Your task to perform on an android device: change notification settings in the gmail app Image 0: 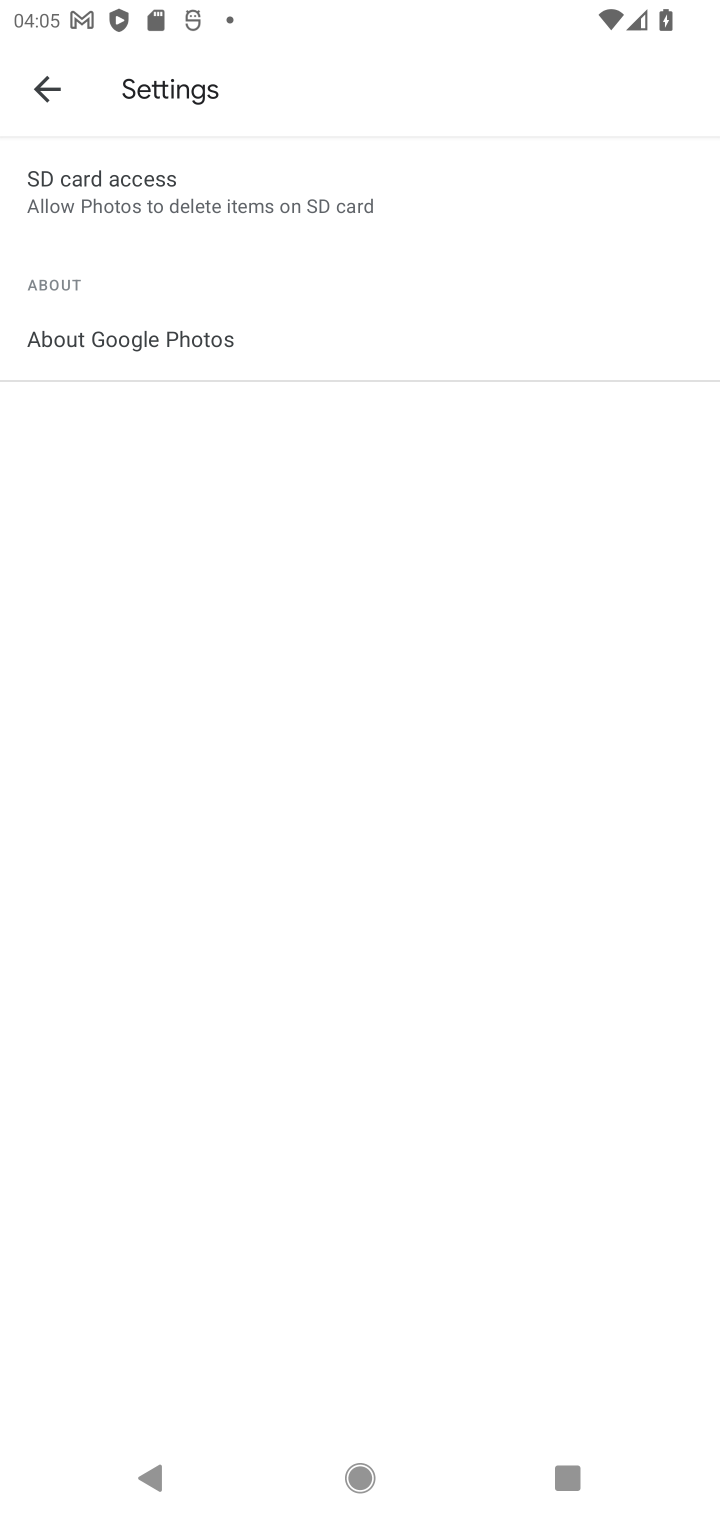
Step 0: press home button
Your task to perform on an android device: change notification settings in the gmail app Image 1: 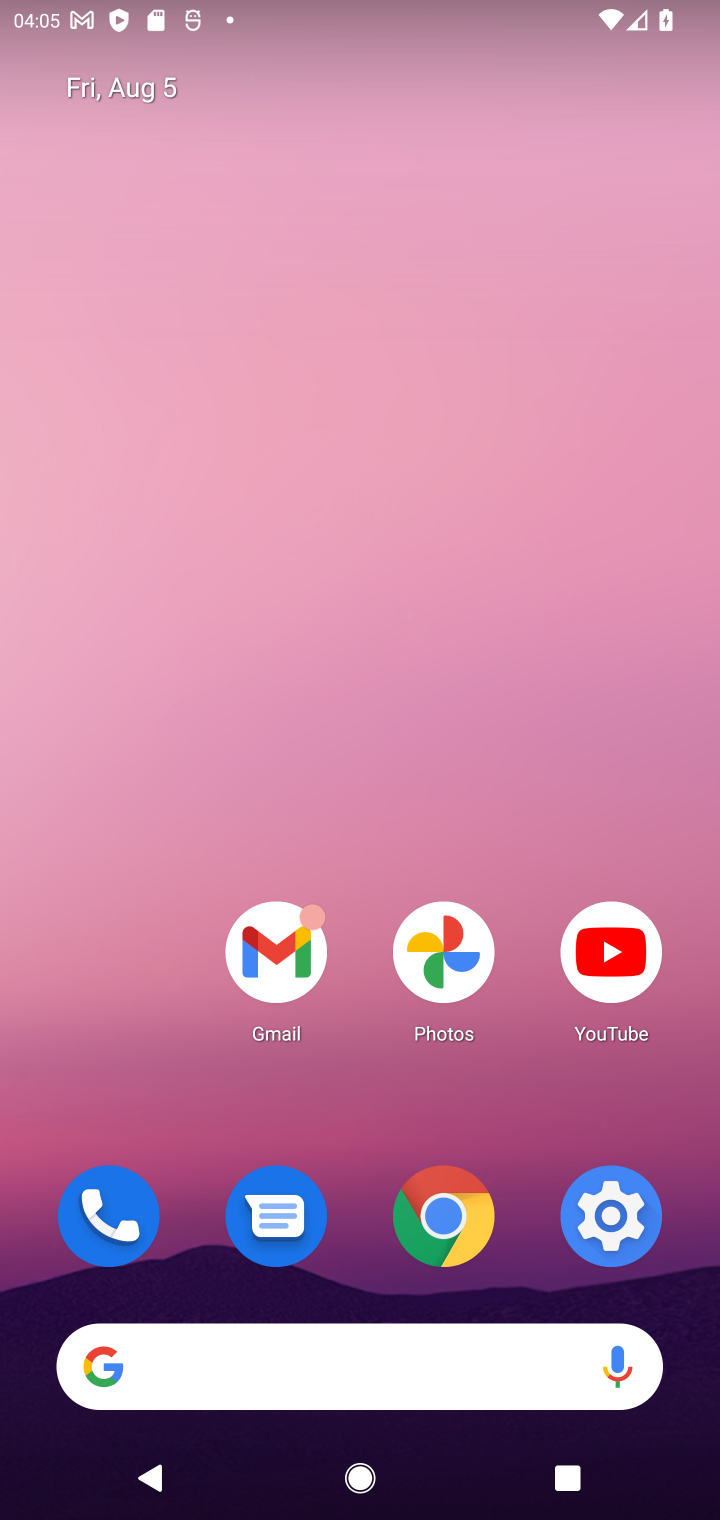
Step 1: click (302, 946)
Your task to perform on an android device: change notification settings in the gmail app Image 2: 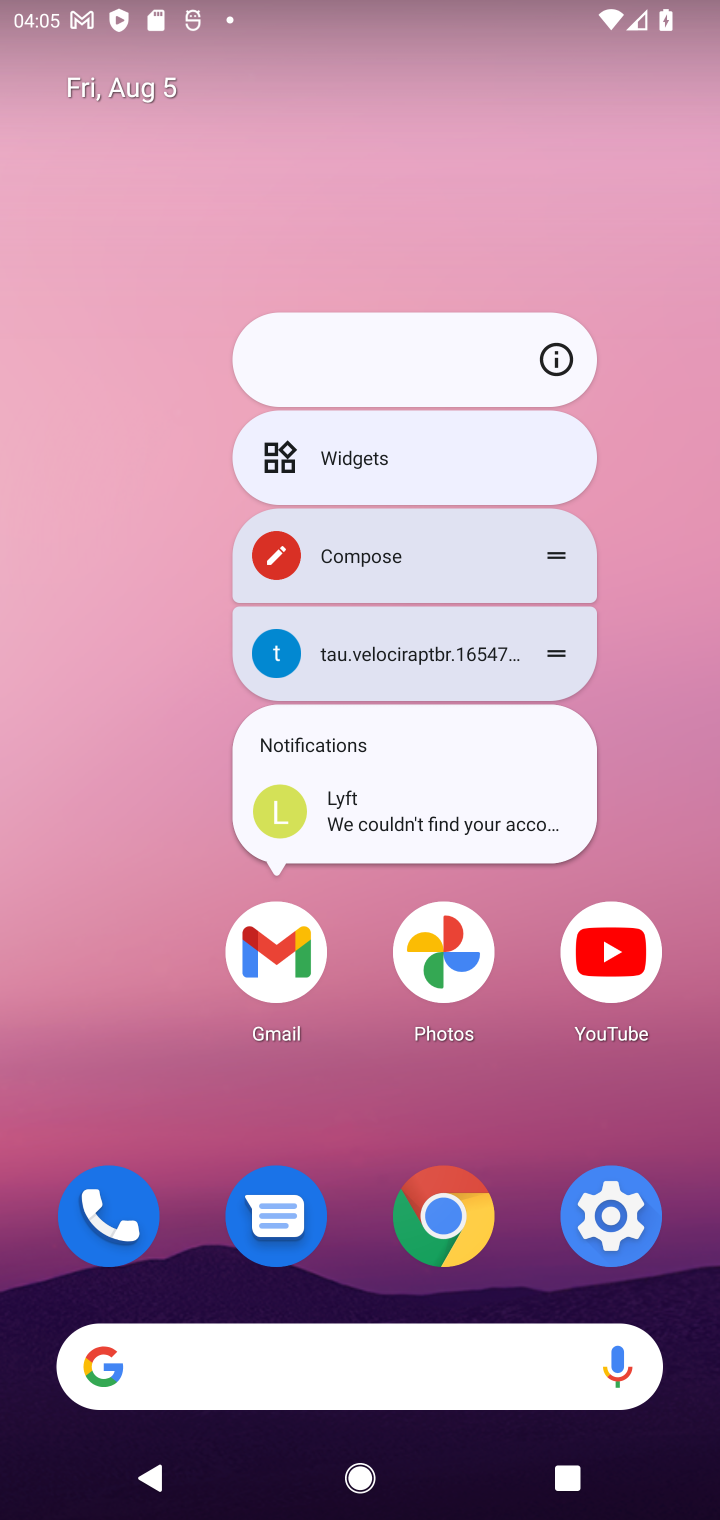
Step 2: click (302, 946)
Your task to perform on an android device: change notification settings in the gmail app Image 3: 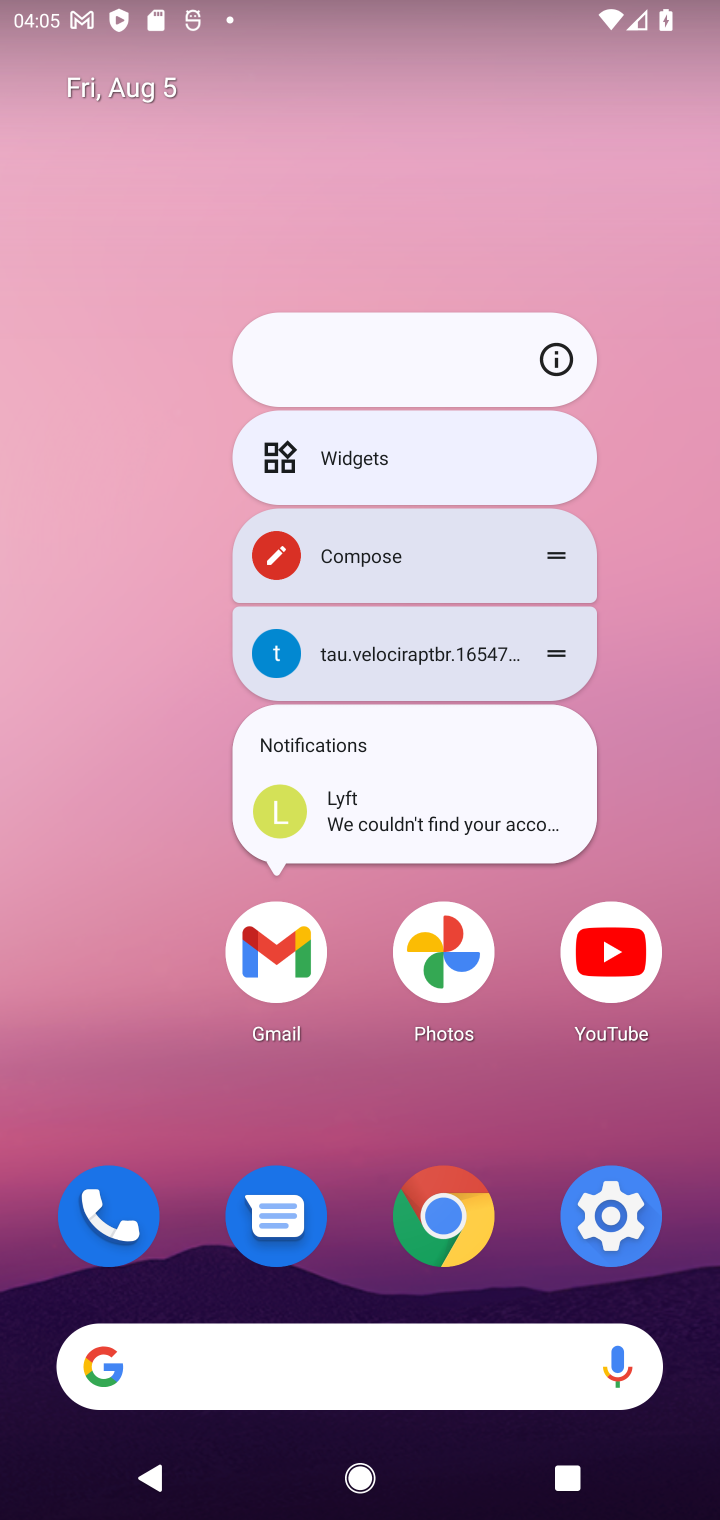
Step 3: click (287, 960)
Your task to perform on an android device: change notification settings in the gmail app Image 4: 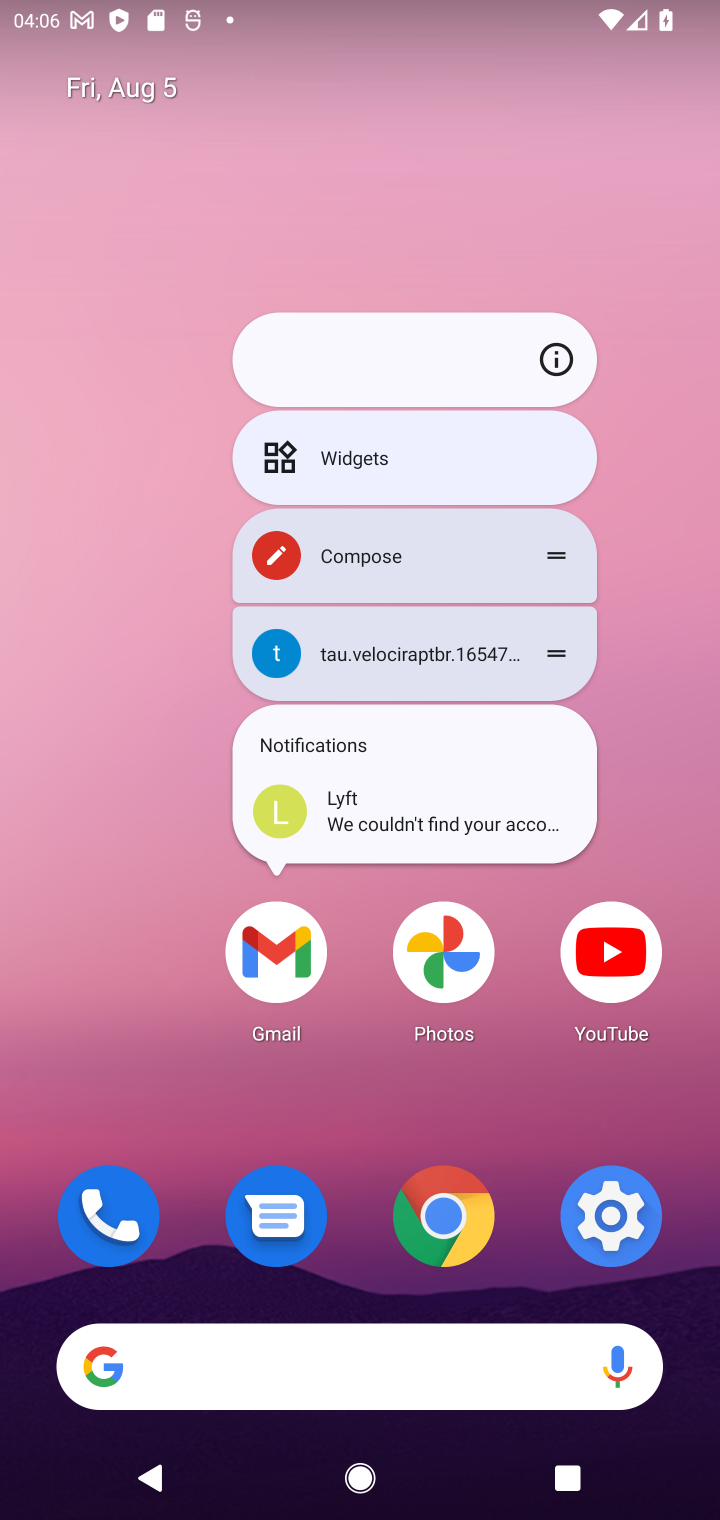
Step 4: click (549, 339)
Your task to perform on an android device: change notification settings in the gmail app Image 5: 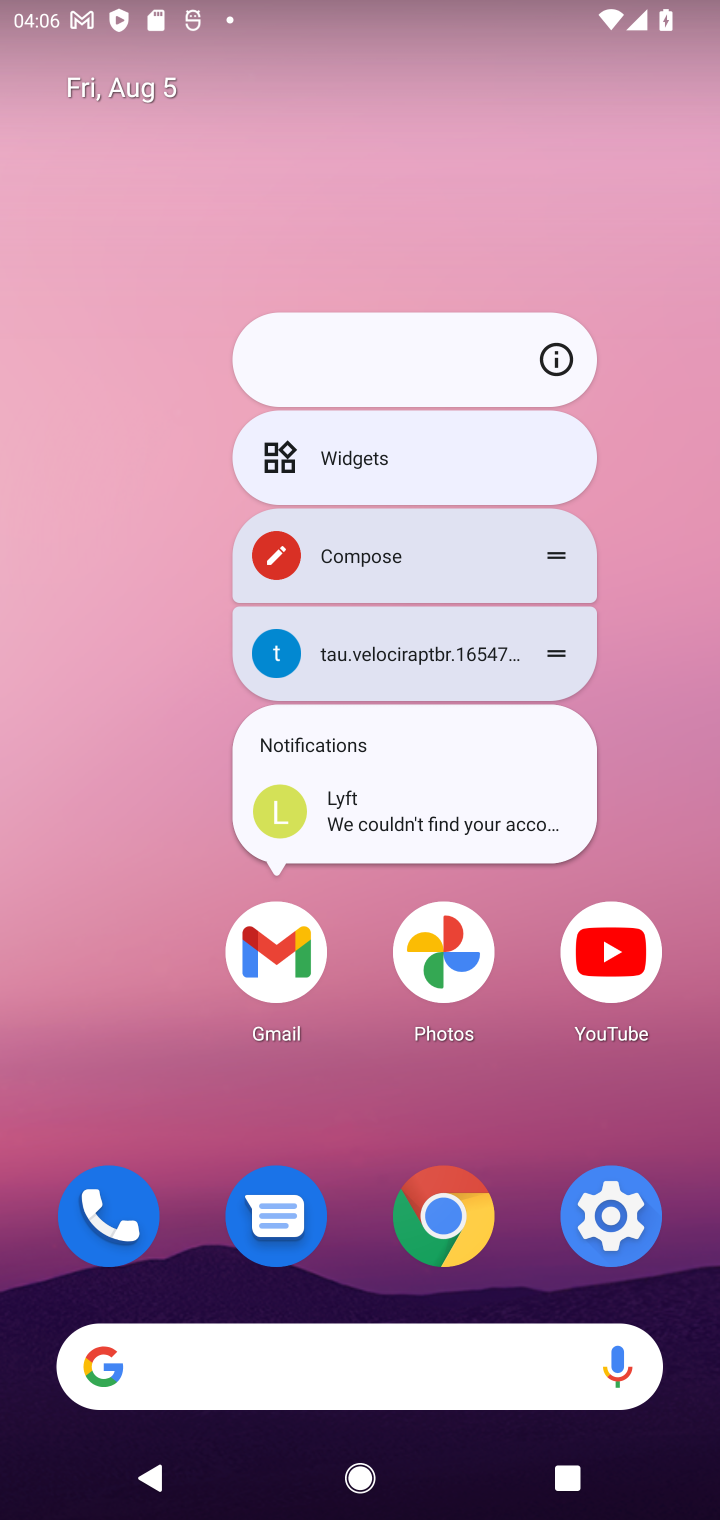
Step 5: click (529, 351)
Your task to perform on an android device: change notification settings in the gmail app Image 6: 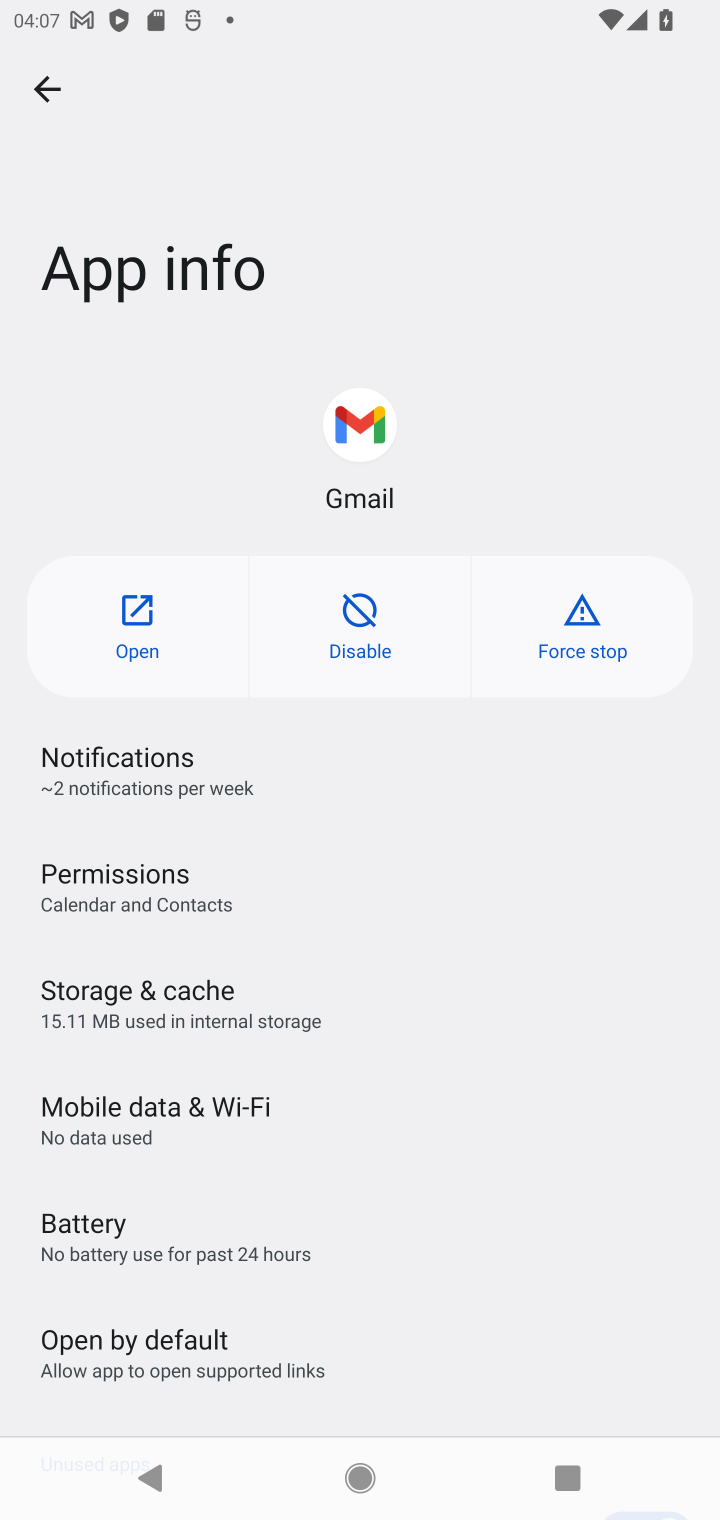
Step 6: click (363, 761)
Your task to perform on an android device: change notification settings in the gmail app Image 7: 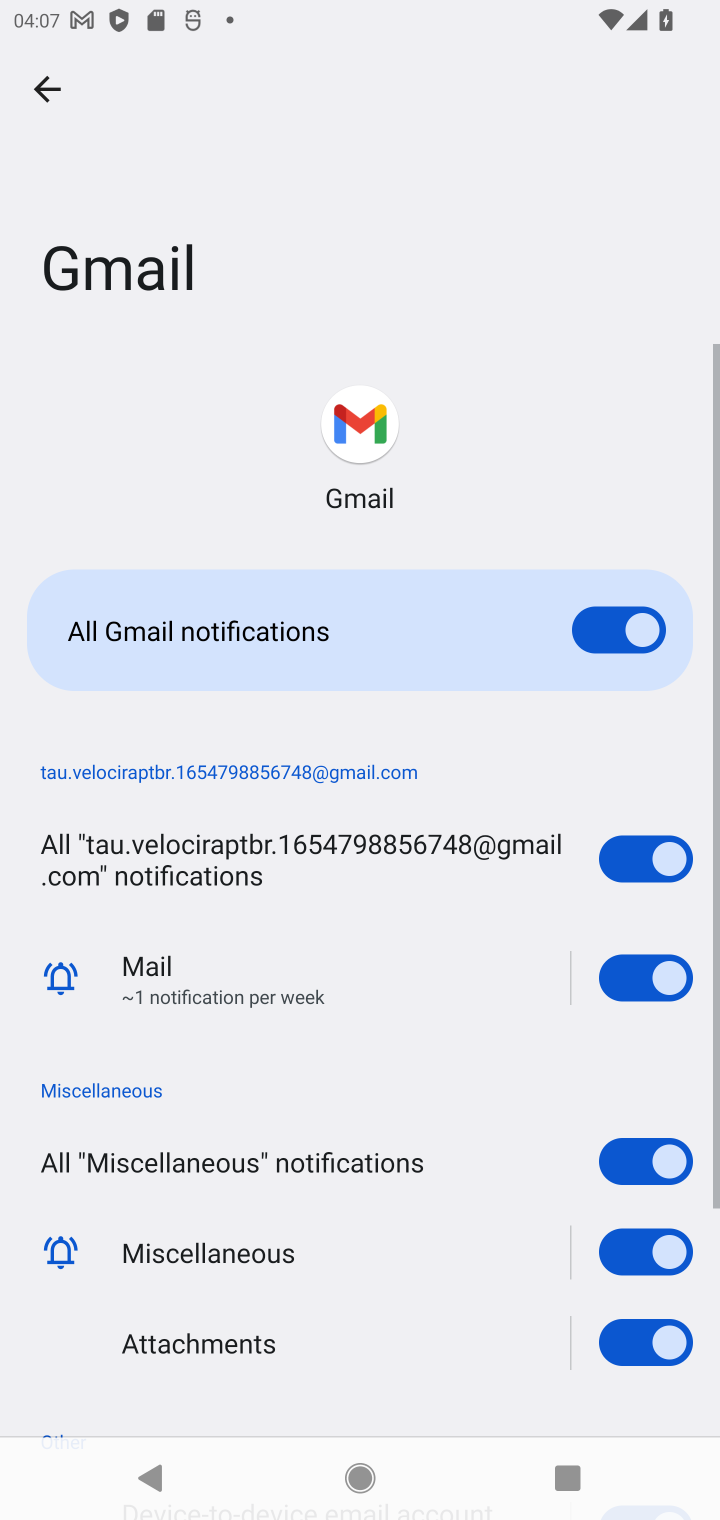
Step 7: click (641, 619)
Your task to perform on an android device: change notification settings in the gmail app Image 8: 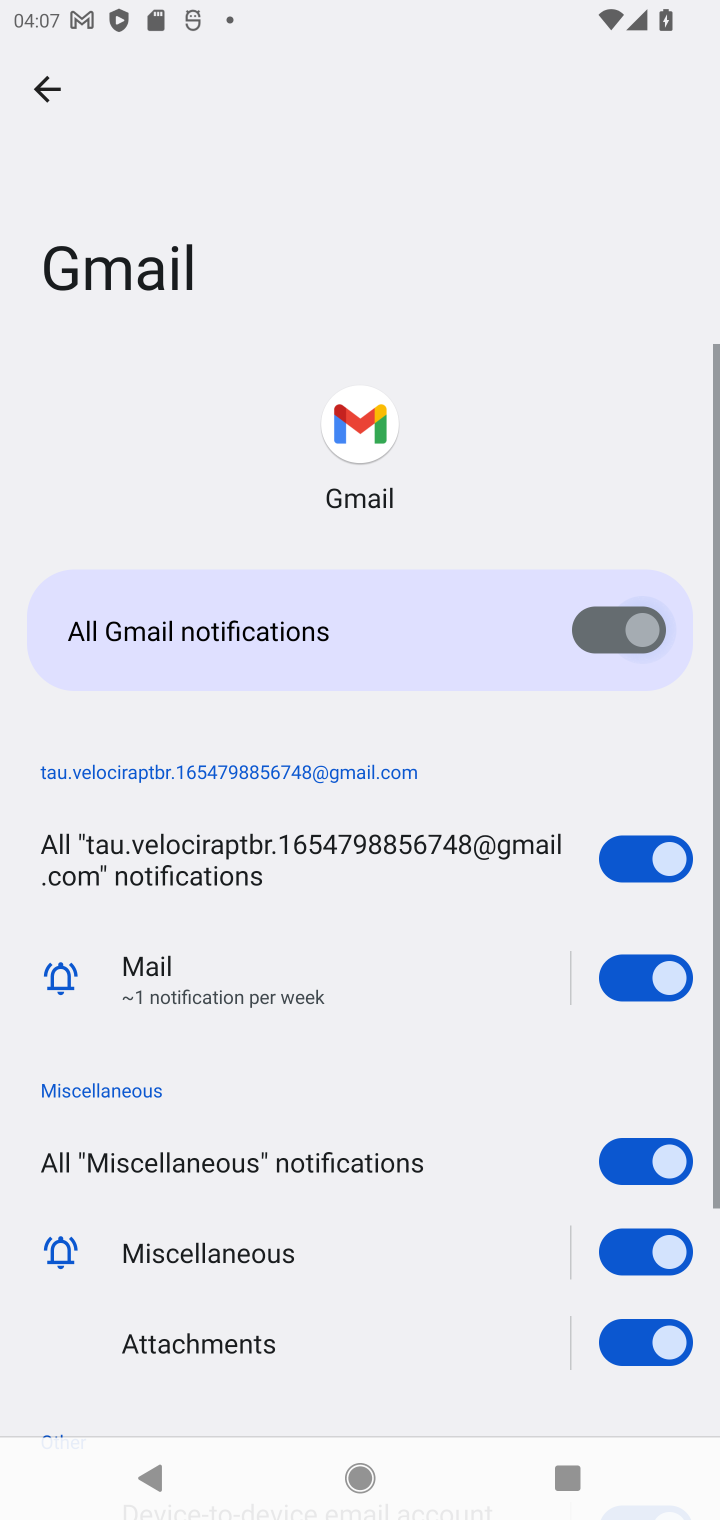
Step 8: task complete